Your task to perform on an android device: Open CNN.com Image 0: 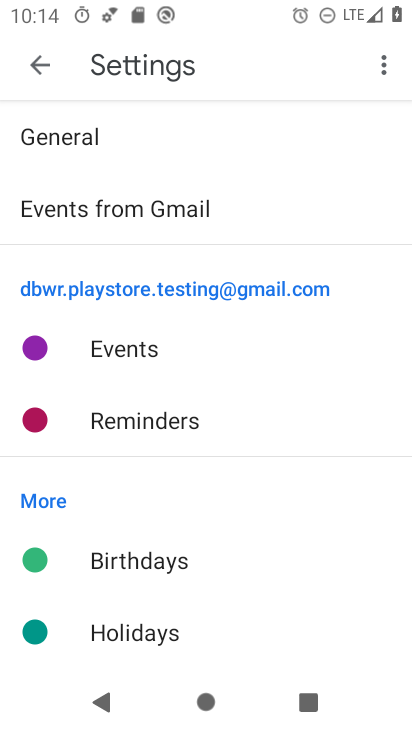
Step 0: press home button
Your task to perform on an android device: Open CNN.com Image 1: 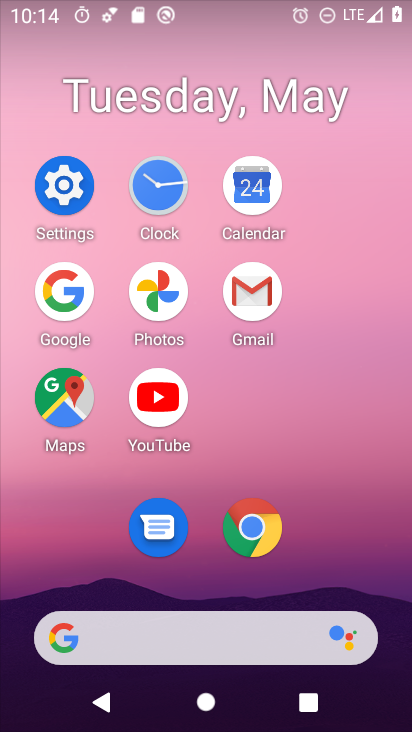
Step 1: click (255, 537)
Your task to perform on an android device: Open CNN.com Image 2: 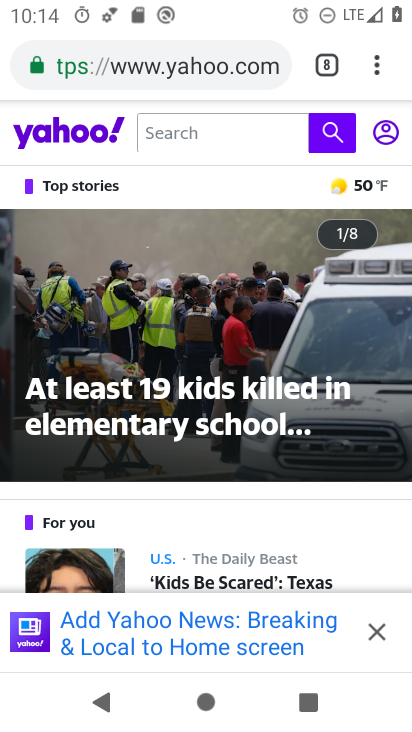
Step 2: click (336, 72)
Your task to perform on an android device: Open CNN.com Image 3: 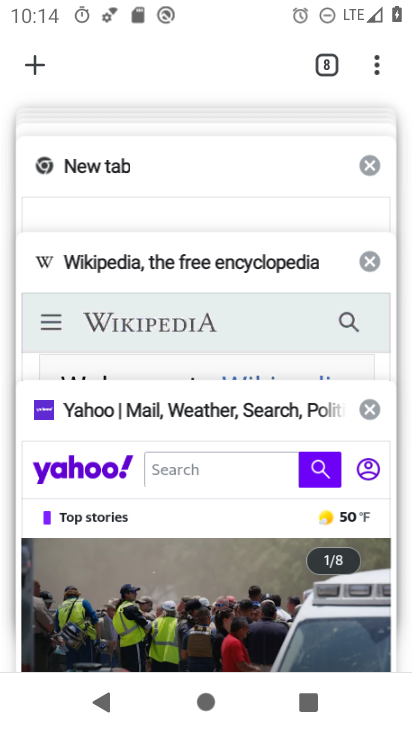
Step 3: drag from (241, 207) to (173, 566)
Your task to perform on an android device: Open CNN.com Image 4: 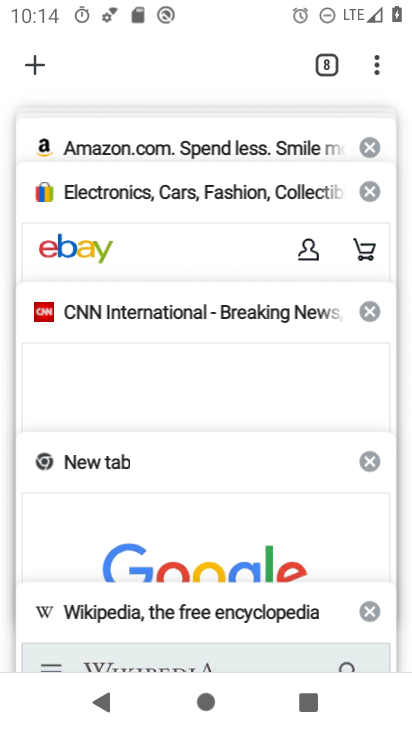
Step 4: click (156, 313)
Your task to perform on an android device: Open CNN.com Image 5: 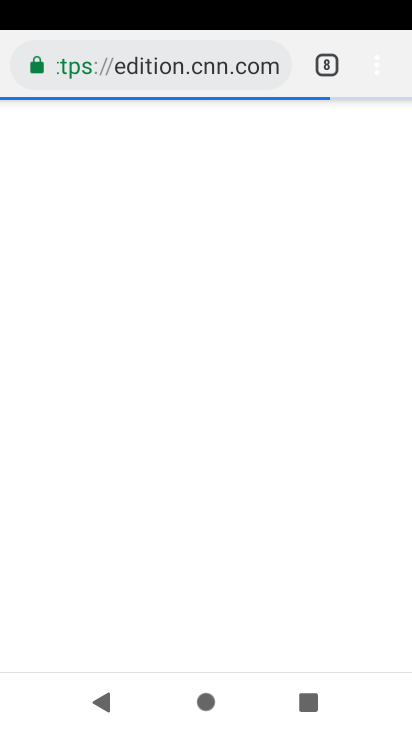
Step 5: task complete